Your task to perform on an android device: Toggle the flashlight Image 0: 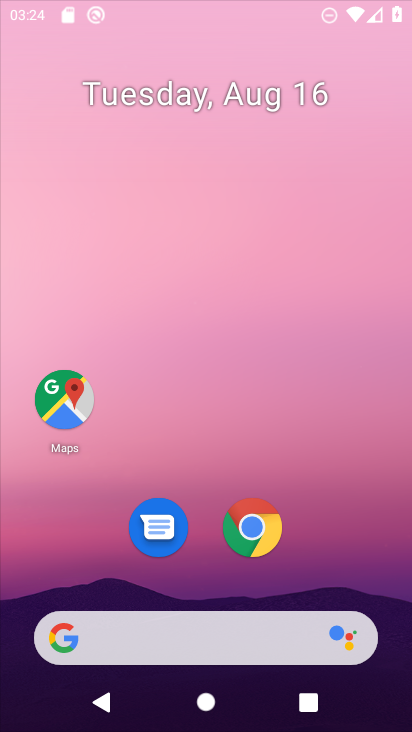
Step 0: press home button
Your task to perform on an android device: Toggle the flashlight Image 1: 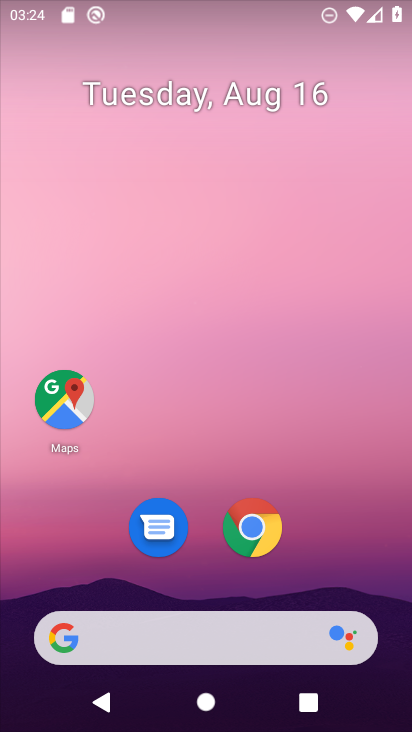
Step 1: drag from (218, 535) to (289, 36)
Your task to perform on an android device: Toggle the flashlight Image 2: 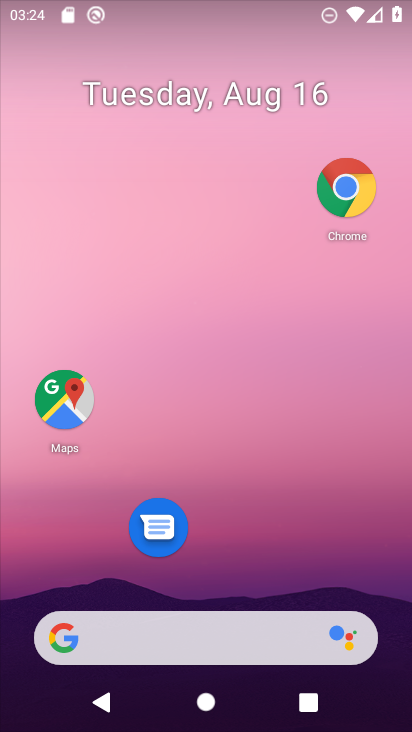
Step 2: drag from (197, 580) to (194, 2)
Your task to perform on an android device: Toggle the flashlight Image 3: 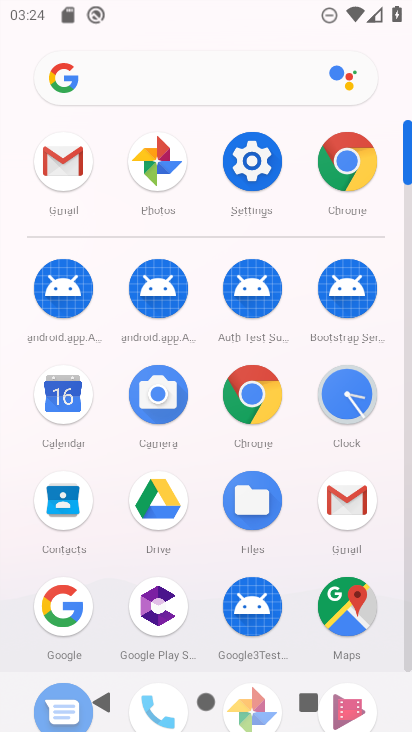
Step 3: click (252, 158)
Your task to perform on an android device: Toggle the flashlight Image 4: 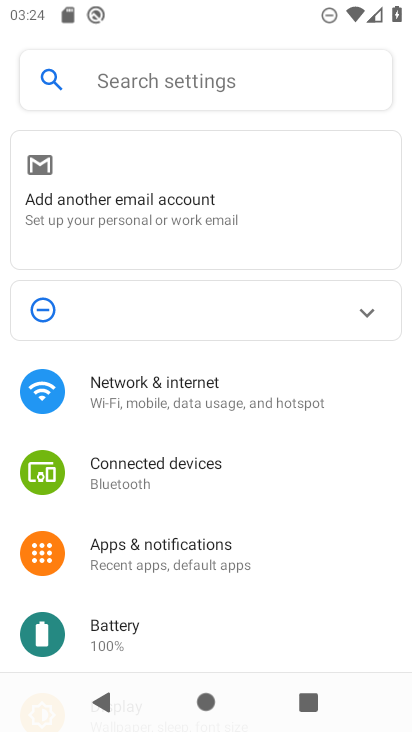
Step 4: click (121, 81)
Your task to perform on an android device: Toggle the flashlight Image 5: 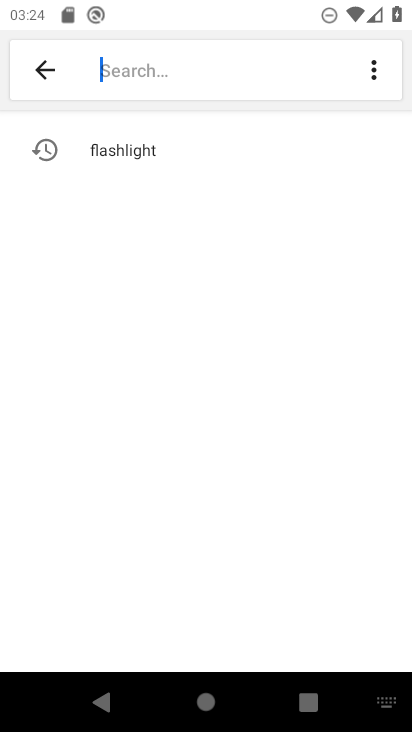
Step 5: click (118, 154)
Your task to perform on an android device: Toggle the flashlight Image 6: 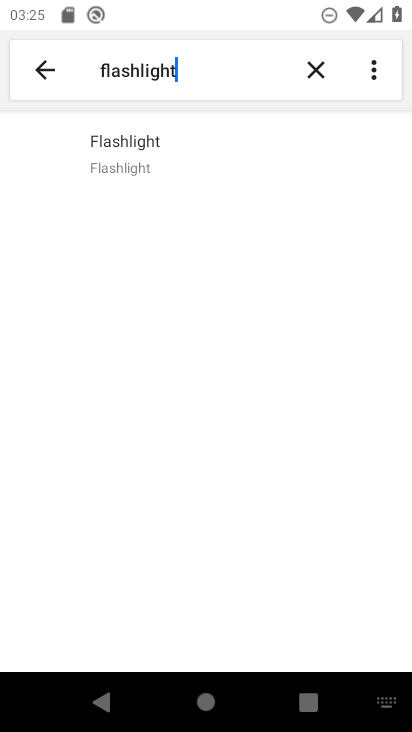
Step 6: click (108, 146)
Your task to perform on an android device: Toggle the flashlight Image 7: 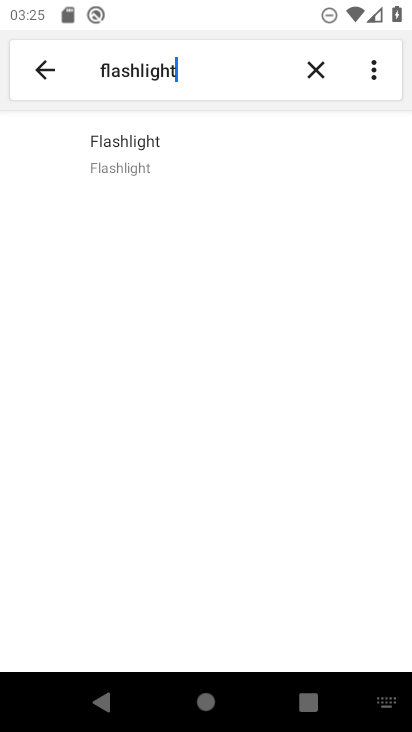
Step 7: click (138, 161)
Your task to perform on an android device: Toggle the flashlight Image 8: 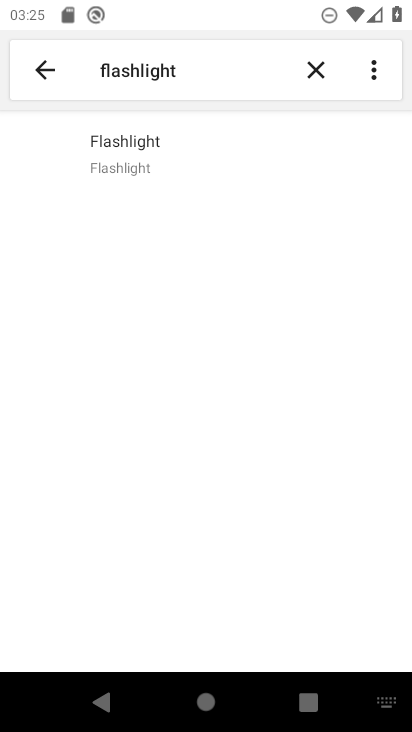
Step 8: task complete